Your task to perform on an android device: change keyboard looks Image 0: 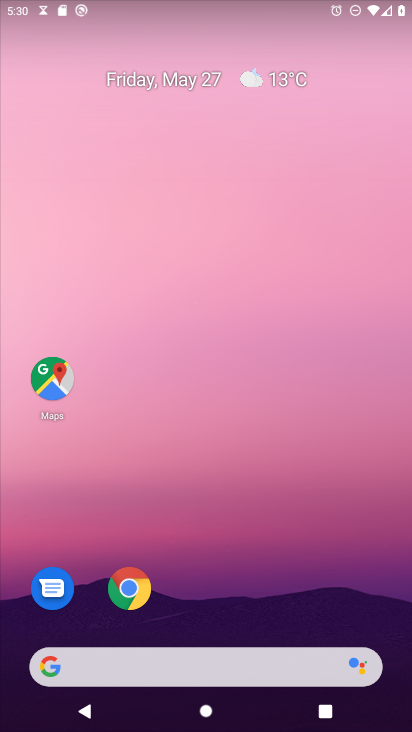
Step 0: drag from (191, 513) to (262, 44)
Your task to perform on an android device: change keyboard looks Image 1: 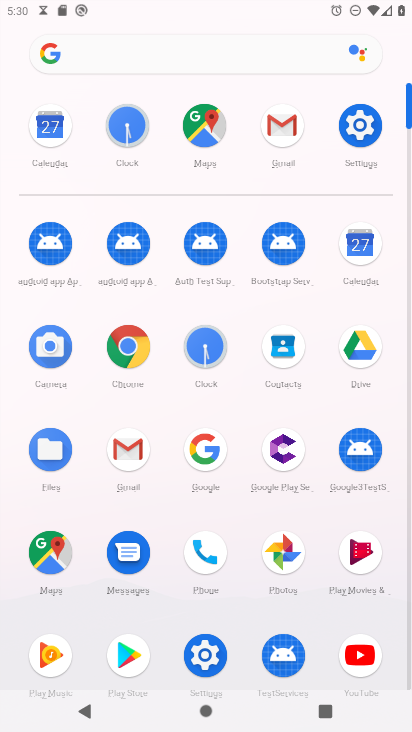
Step 1: click (365, 119)
Your task to perform on an android device: change keyboard looks Image 2: 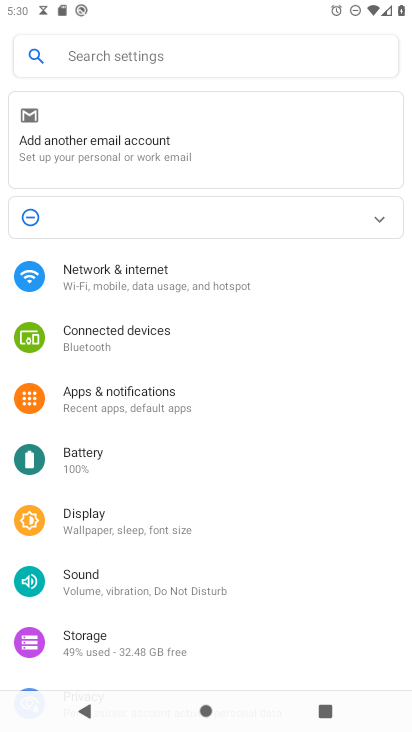
Step 2: drag from (153, 633) to (235, 0)
Your task to perform on an android device: change keyboard looks Image 3: 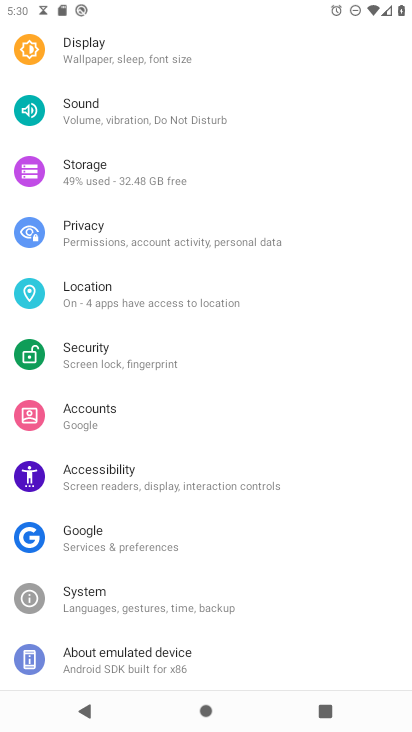
Step 3: click (87, 603)
Your task to perform on an android device: change keyboard looks Image 4: 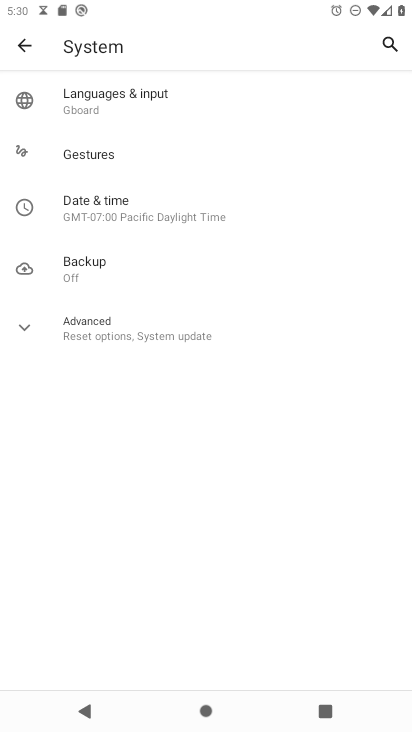
Step 4: click (95, 96)
Your task to perform on an android device: change keyboard looks Image 5: 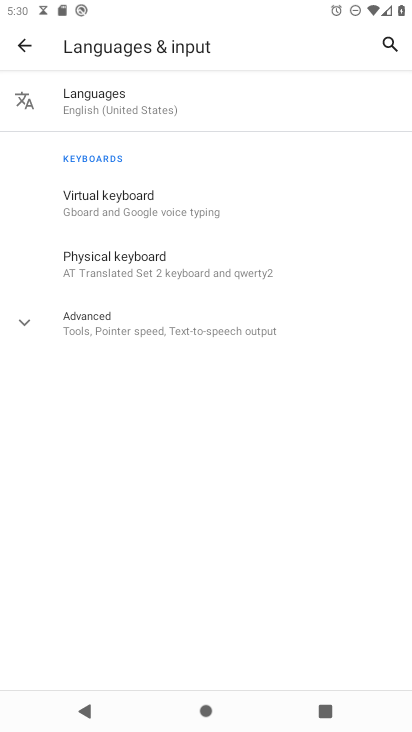
Step 5: click (128, 197)
Your task to perform on an android device: change keyboard looks Image 6: 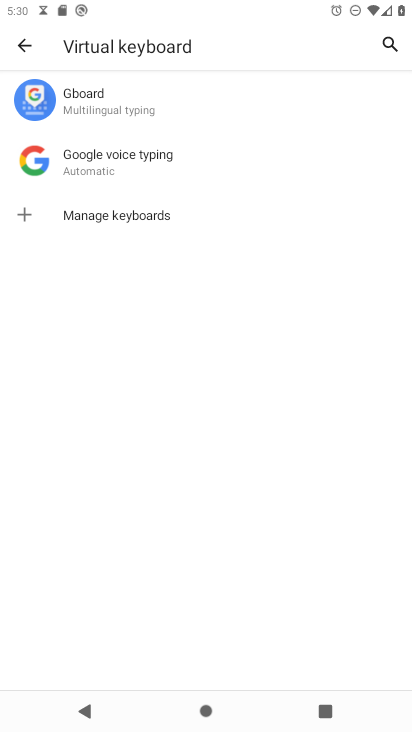
Step 6: click (104, 101)
Your task to perform on an android device: change keyboard looks Image 7: 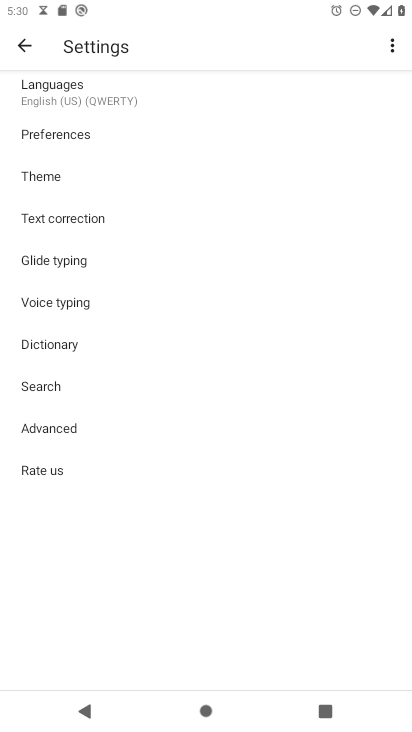
Step 7: click (66, 172)
Your task to perform on an android device: change keyboard looks Image 8: 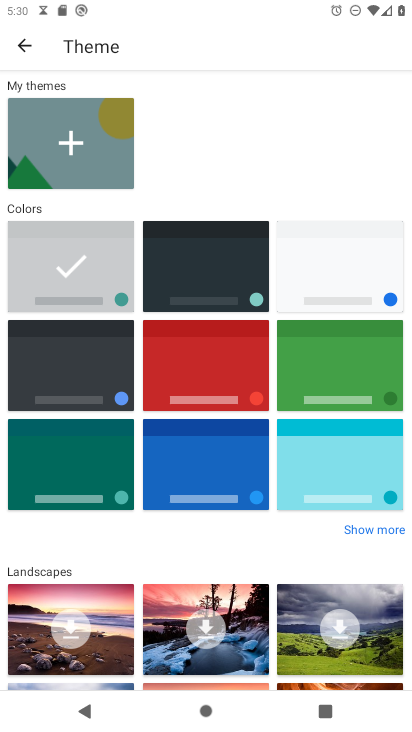
Step 8: click (309, 371)
Your task to perform on an android device: change keyboard looks Image 9: 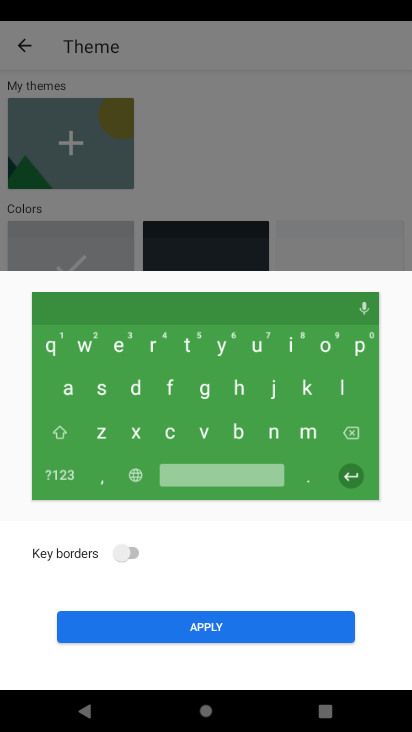
Step 9: click (140, 627)
Your task to perform on an android device: change keyboard looks Image 10: 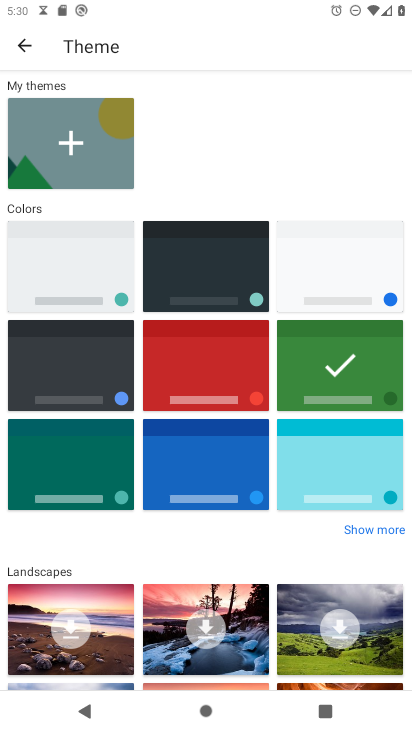
Step 10: task complete